Your task to perform on an android device: Open Google Chrome Image 0: 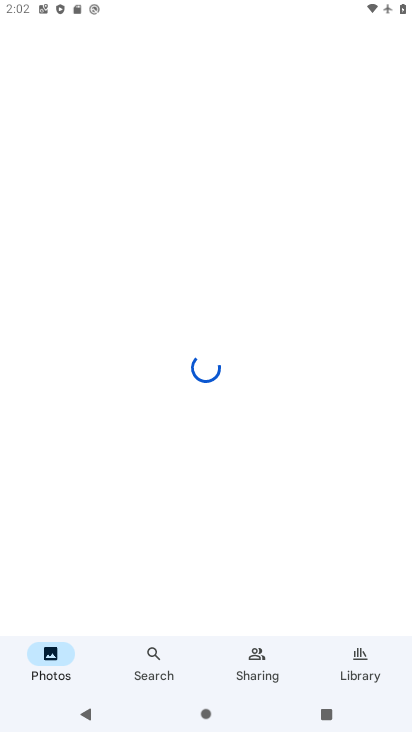
Step 0: press home button
Your task to perform on an android device: Open Google Chrome Image 1: 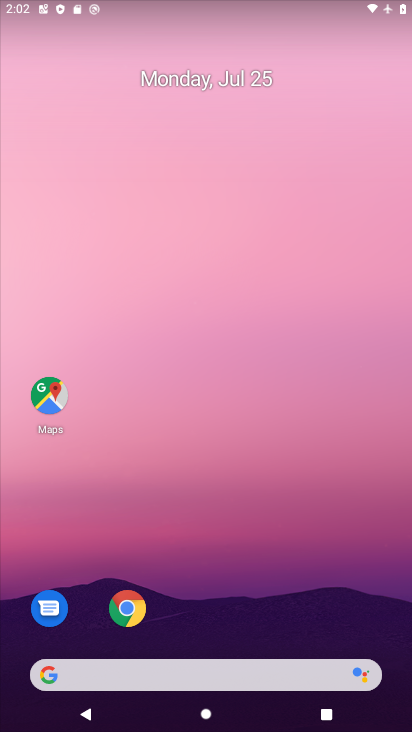
Step 1: press home button
Your task to perform on an android device: Open Google Chrome Image 2: 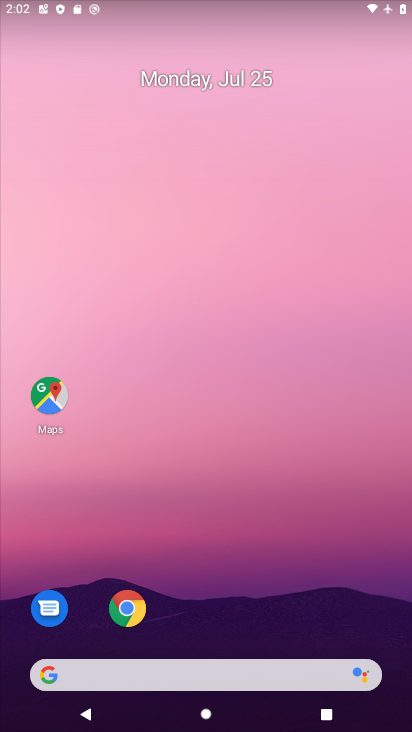
Step 2: drag from (196, 566) to (228, 120)
Your task to perform on an android device: Open Google Chrome Image 3: 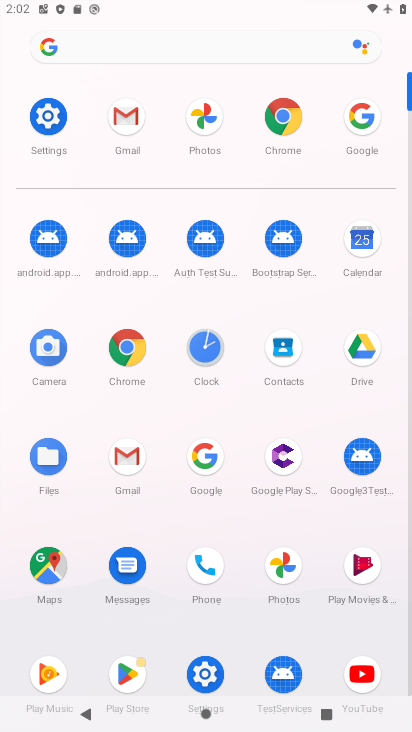
Step 3: click (276, 143)
Your task to perform on an android device: Open Google Chrome Image 4: 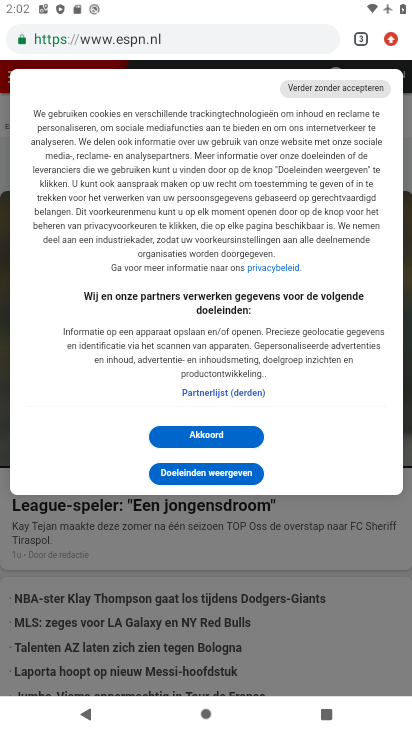
Step 4: task complete